Your task to perform on an android device: turn pop-ups on in chrome Image 0: 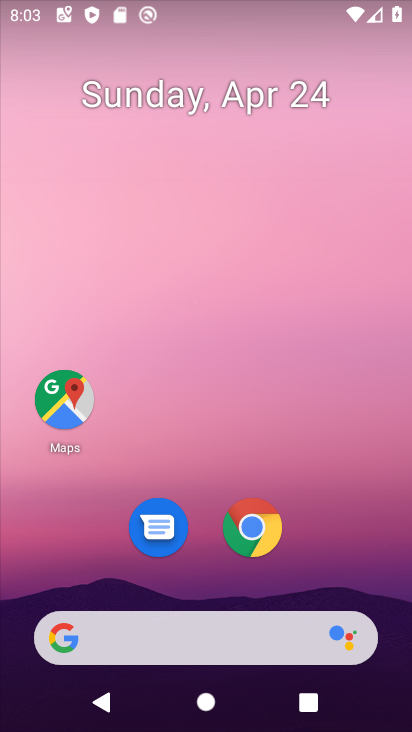
Step 0: drag from (384, 556) to (293, 98)
Your task to perform on an android device: turn pop-ups on in chrome Image 1: 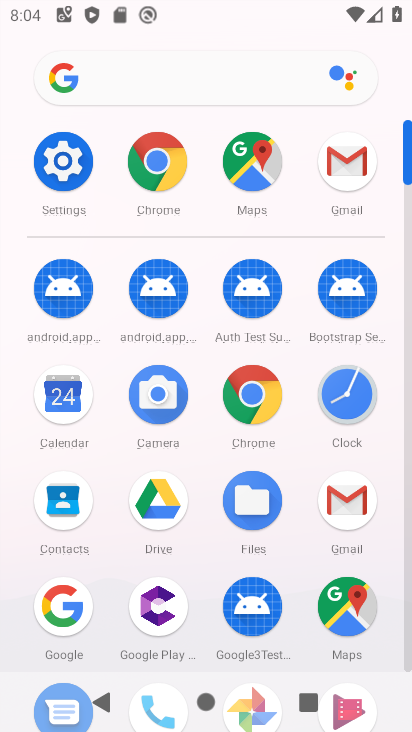
Step 1: click (239, 401)
Your task to perform on an android device: turn pop-ups on in chrome Image 2: 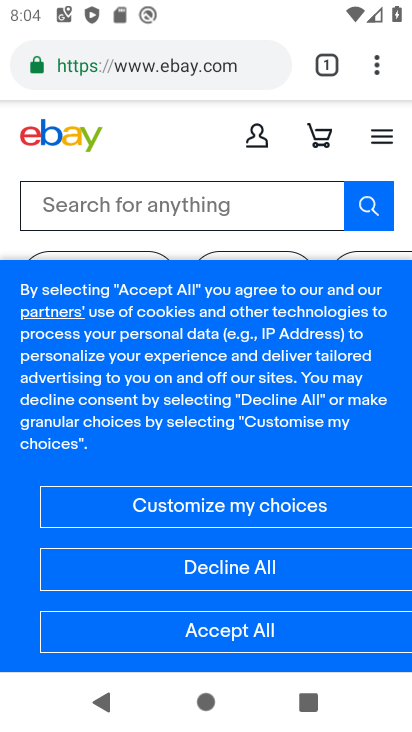
Step 2: press back button
Your task to perform on an android device: turn pop-ups on in chrome Image 3: 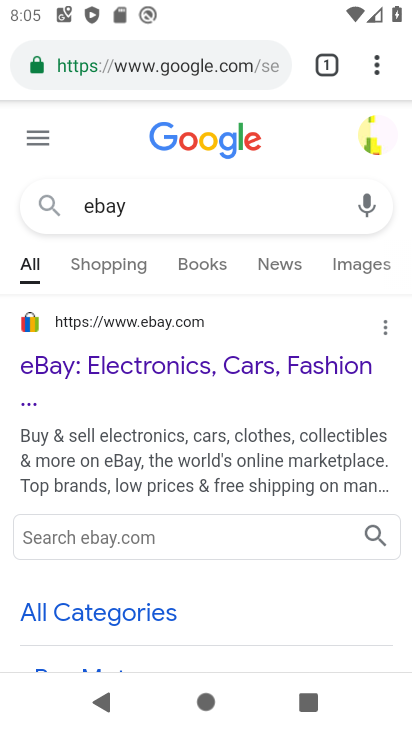
Step 3: press back button
Your task to perform on an android device: turn pop-ups on in chrome Image 4: 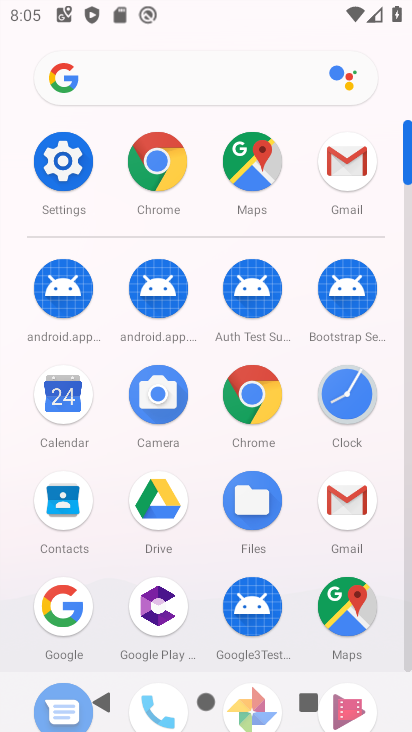
Step 4: click (166, 171)
Your task to perform on an android device: turn pop-ups on in chrome Image 5: 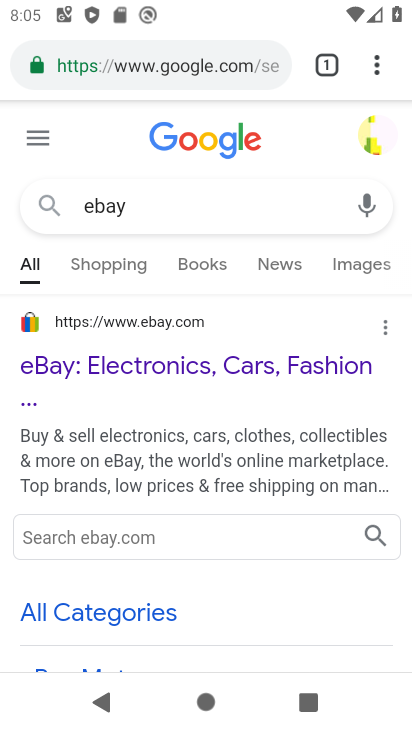
Step 5: click (375, 58)
Your task to perform on an android device: turn pop-ups on in chrome Image 6: 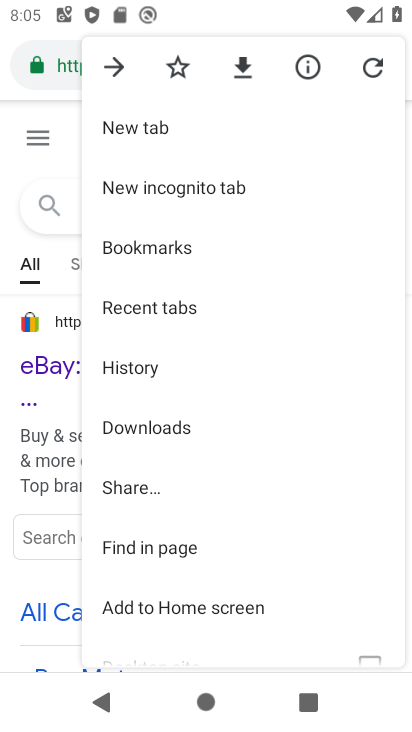
Step 6: drag from (180, 507) to (202, 266)
Your task to perform on an android device: turn pop-ups on in chrome Image 7: 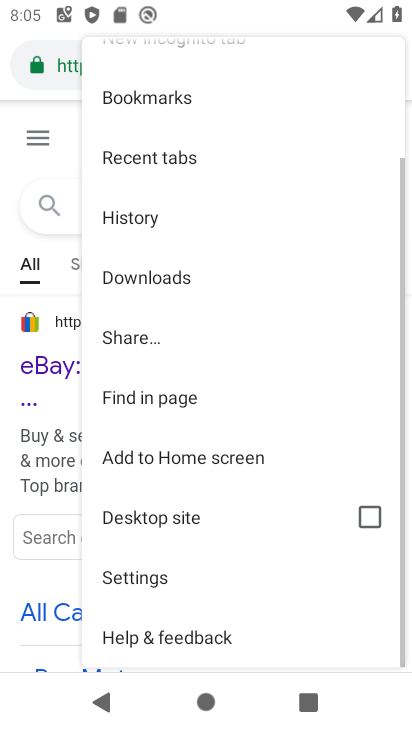
Step 7: click (166, 574)
Your task to perform on an android device: turn pop-ups on in chrome Image 8: 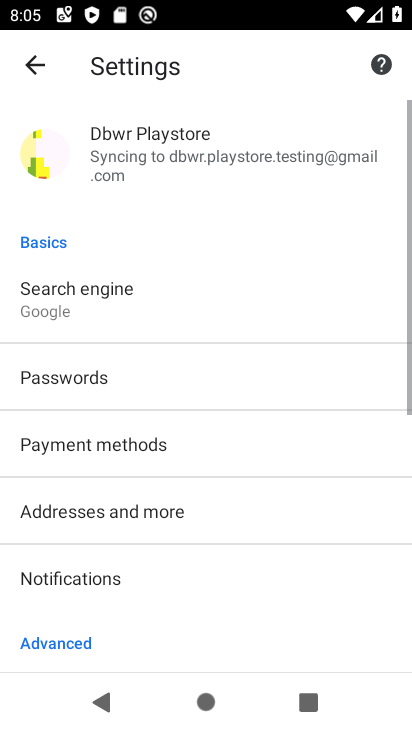
Step 8: drag from (194, 508) to (214, 200)
Your task to perform on an android device: turn pop-ups on in chrome Image 9: 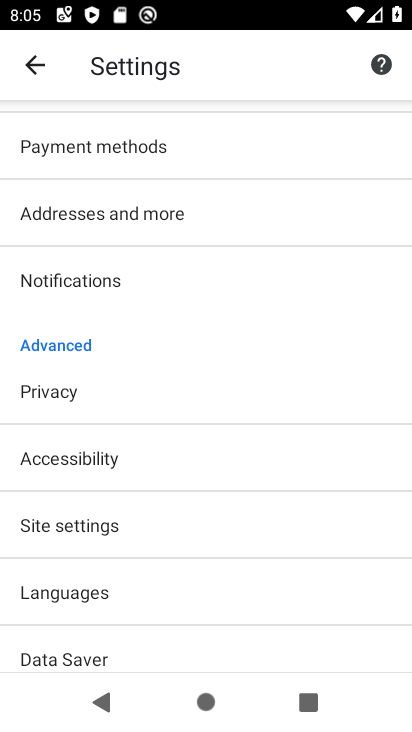
Step 9: click (89, 516)
Your task to perform on an android device: turn pop-ups on in chrome Image 10: 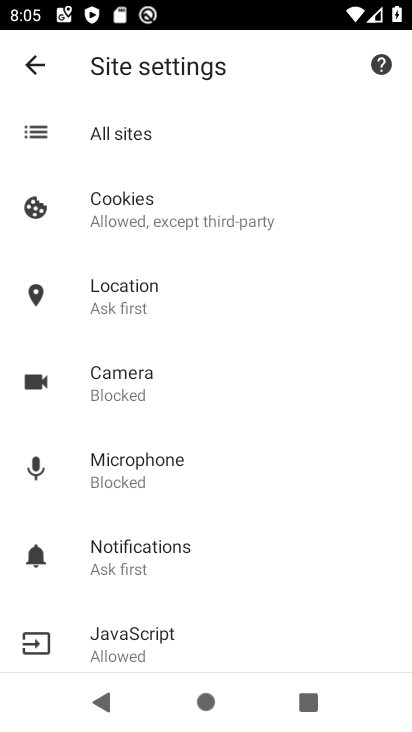
Step 10: drag from (116, 623) to (209, 131)
Your task to perform on an android device: turn pop-ups on in chrome Image 11: 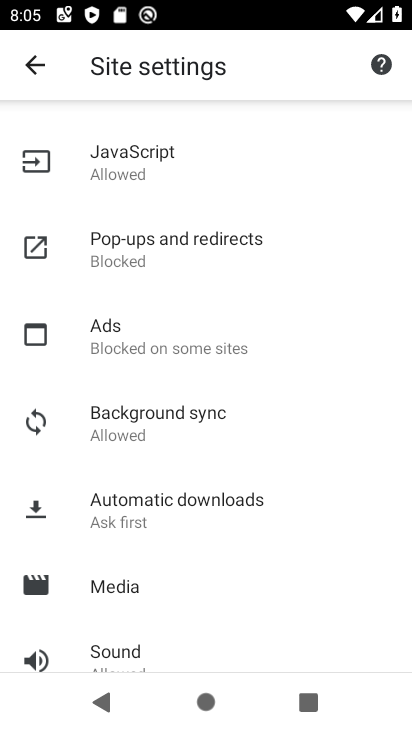
Step 11: click (173, 236)
Your task to perform on an android device: turn pop-ups on in chrome Image 12: 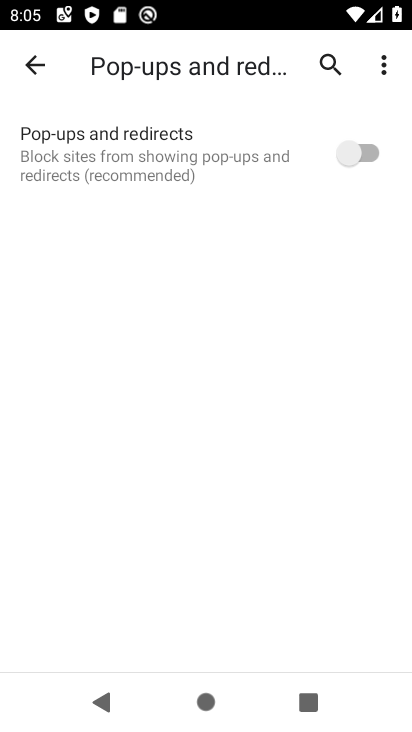
Step 12: click (327, 143)
Your task to perform on an android device: turn pop-ups on in chrome Image 13: 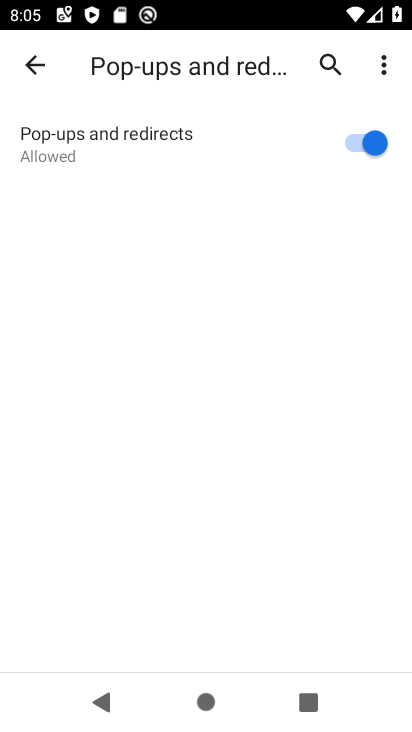
Step 13: task complete